Your task to perform on an android device: open device folders in google photos Image 0: 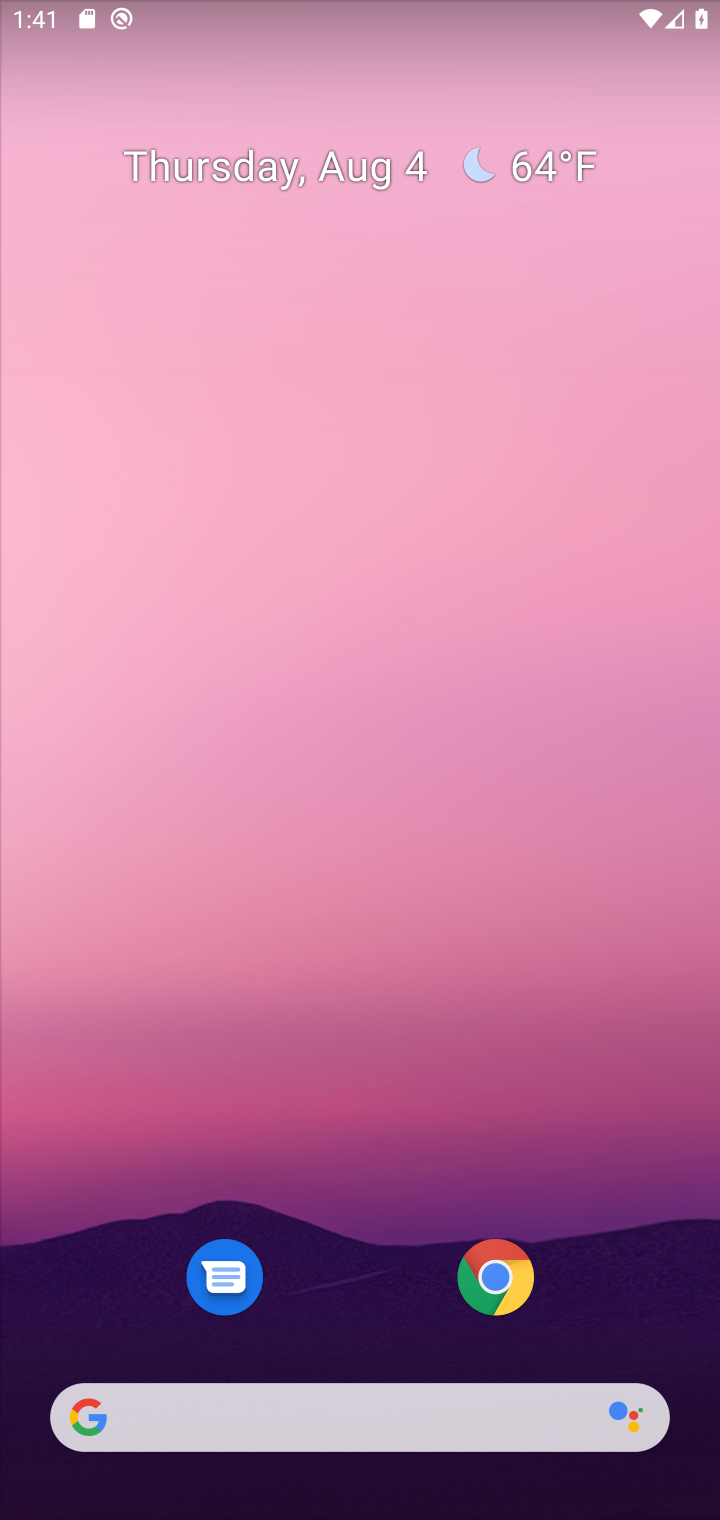
Step 0: drag from (492, 1313) to (424, 376)
Your task to perform on an android device: open device folders in google photos Image 1: 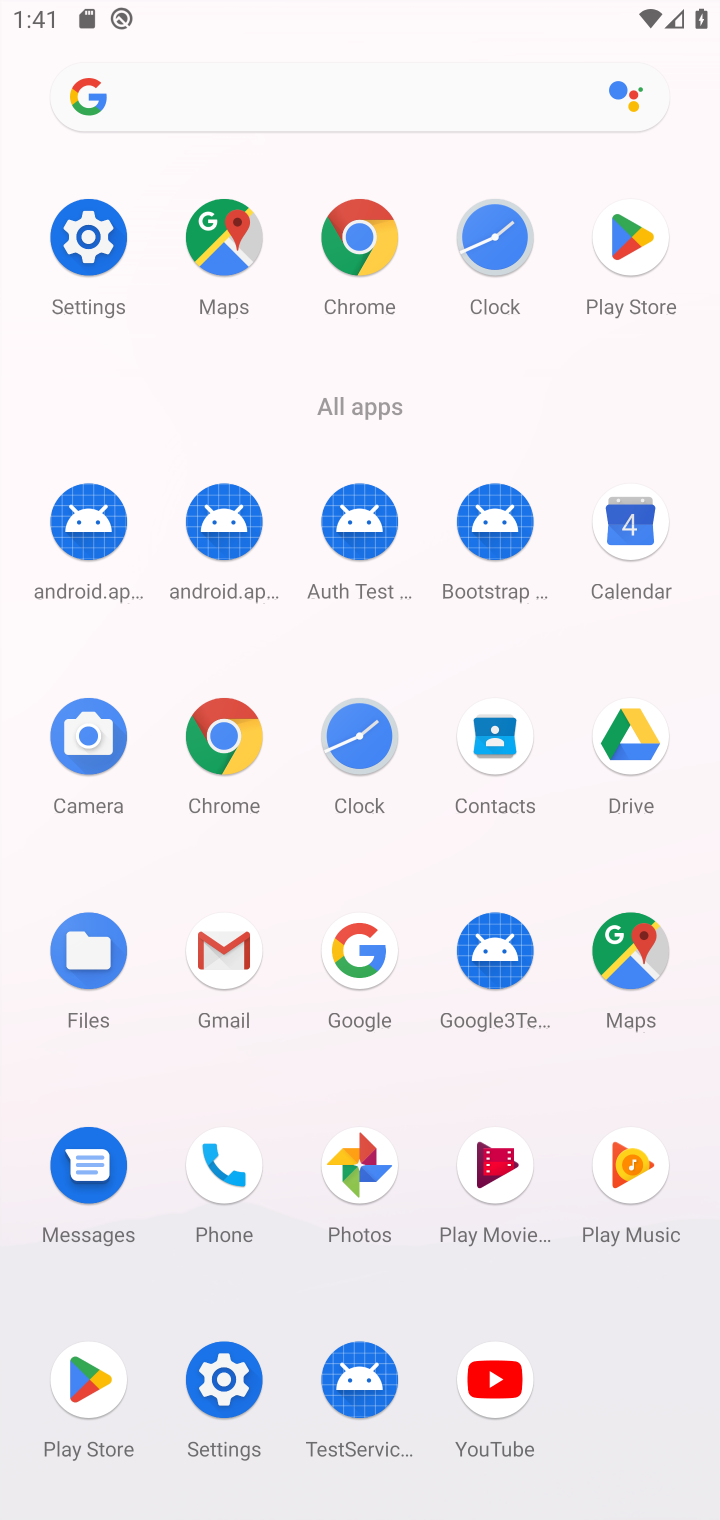
Step 1: click (359, 1189)
Your task to perform on an android device: open device folders in google photos Image 2: 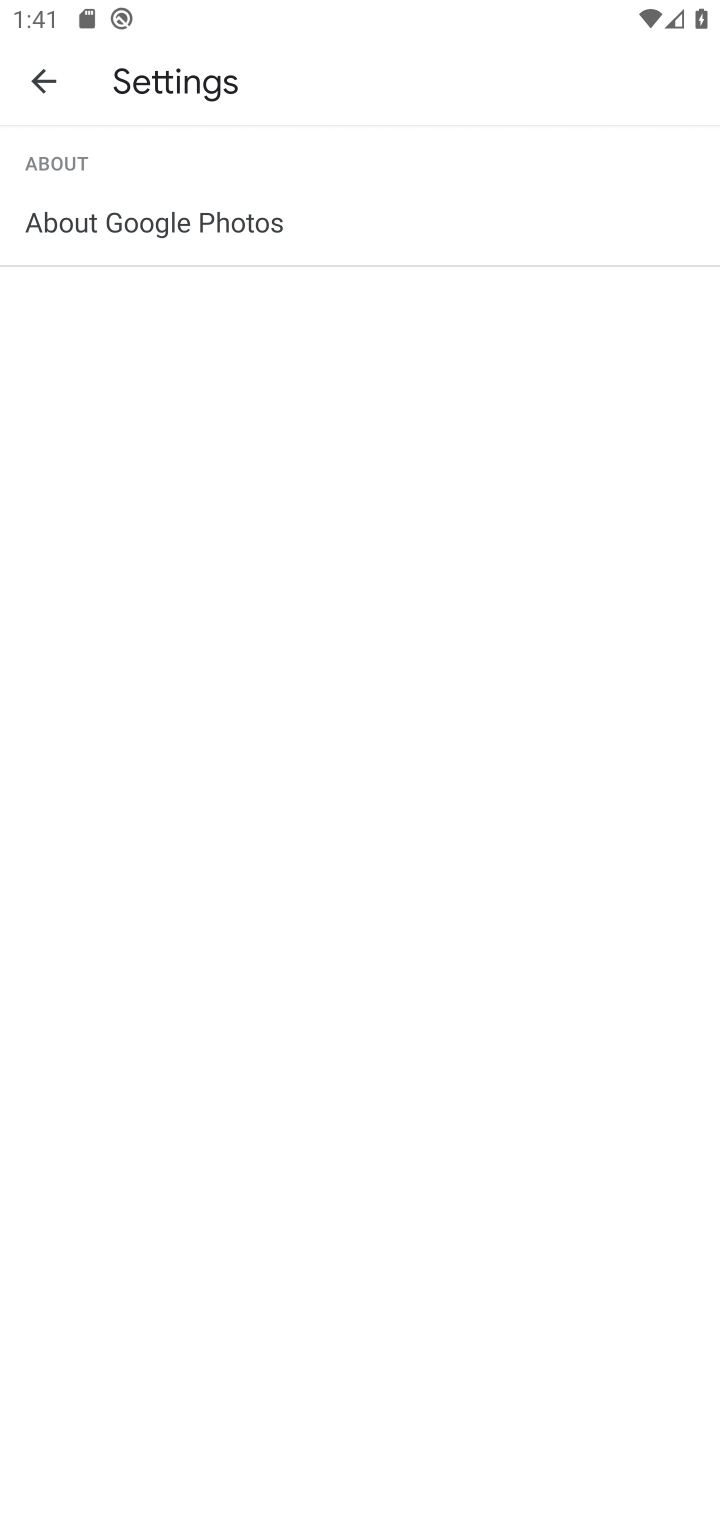
Step 2: click (61, 67)
Your task to perform on an android device: open device folders in google photos Image 3: 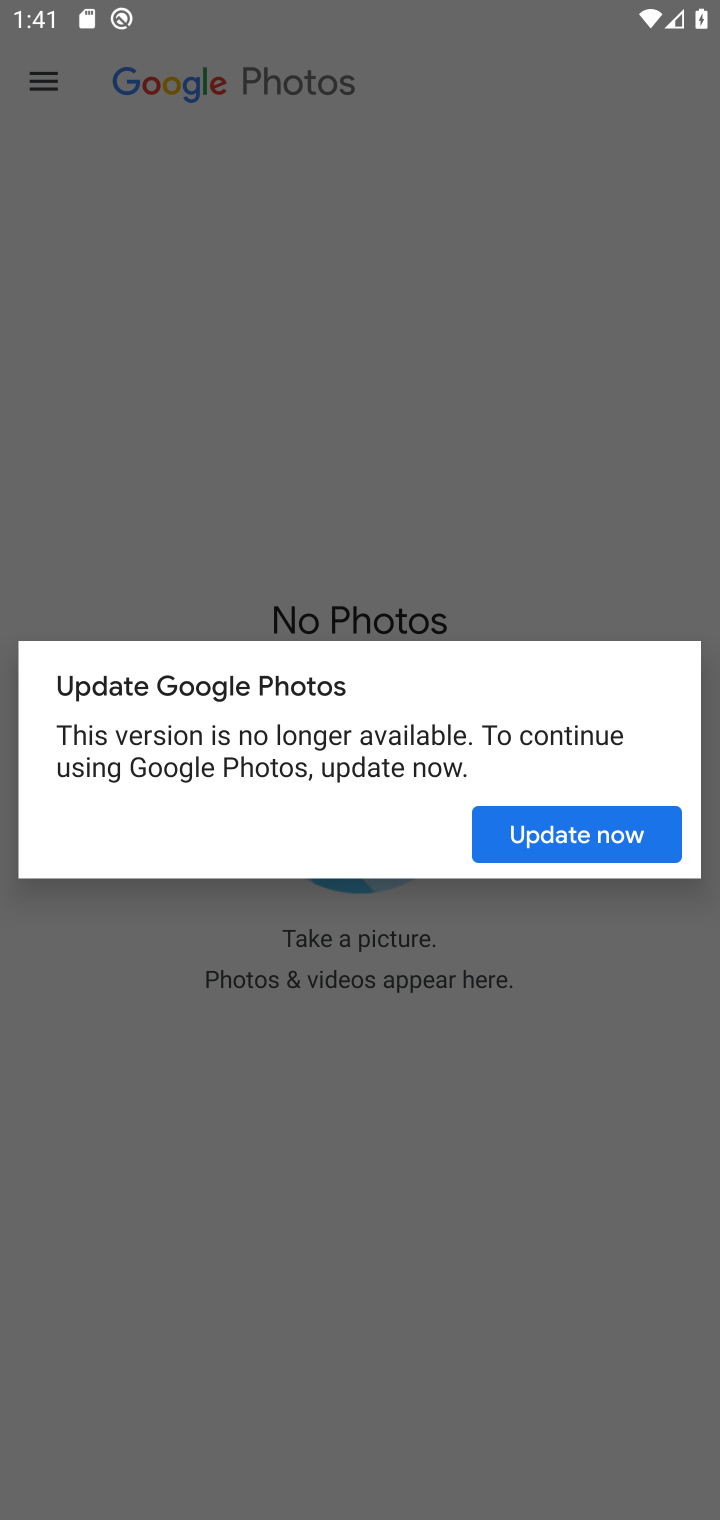
Step 3: click (556, 840)
Your task to perform on an android device: open device folders in google photos Image 4: 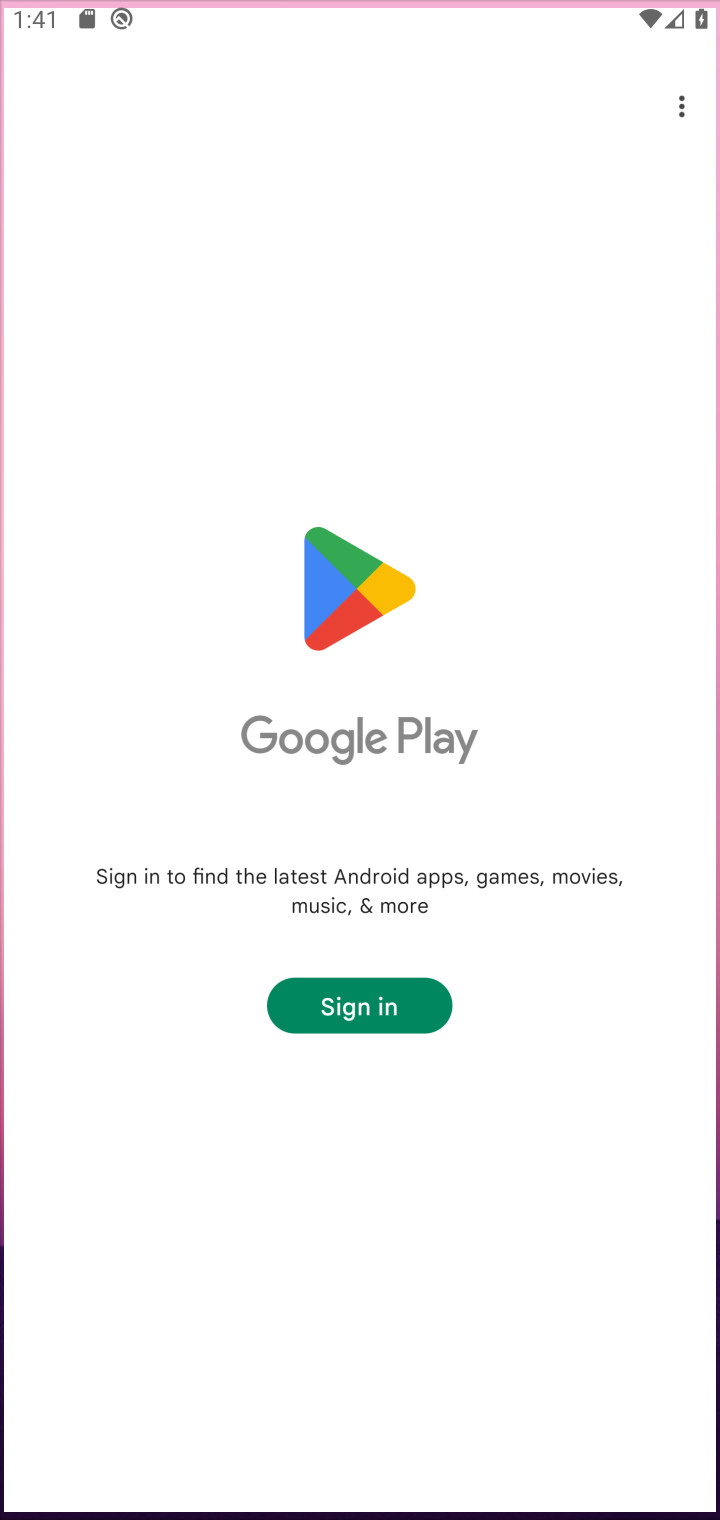
Step 4: press back button
Your task to perform on an android device: open device folders in google photos Image 5: 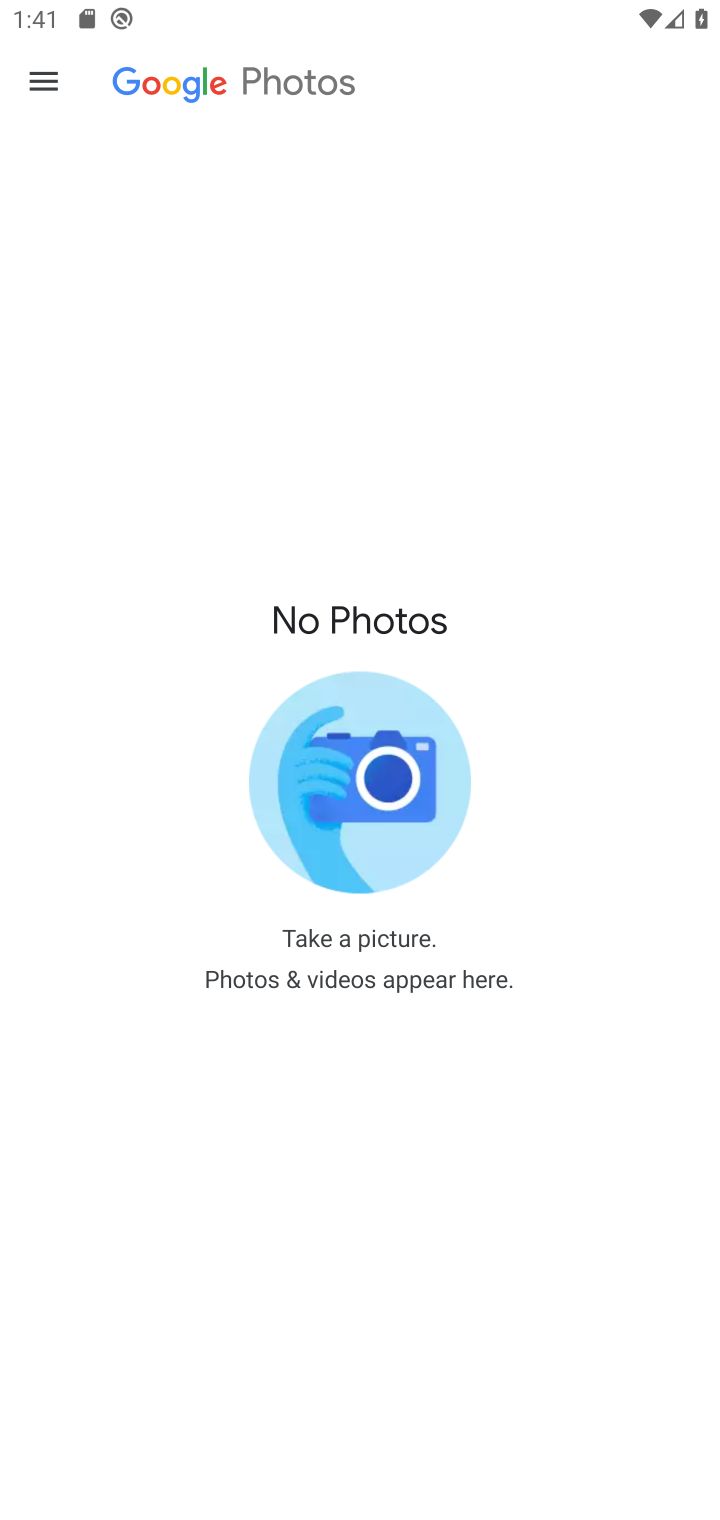
Step 5: drag from (650, 1449) to (534, 1092)
Your task to perform on an android device: open device folders in google photos Image 6: 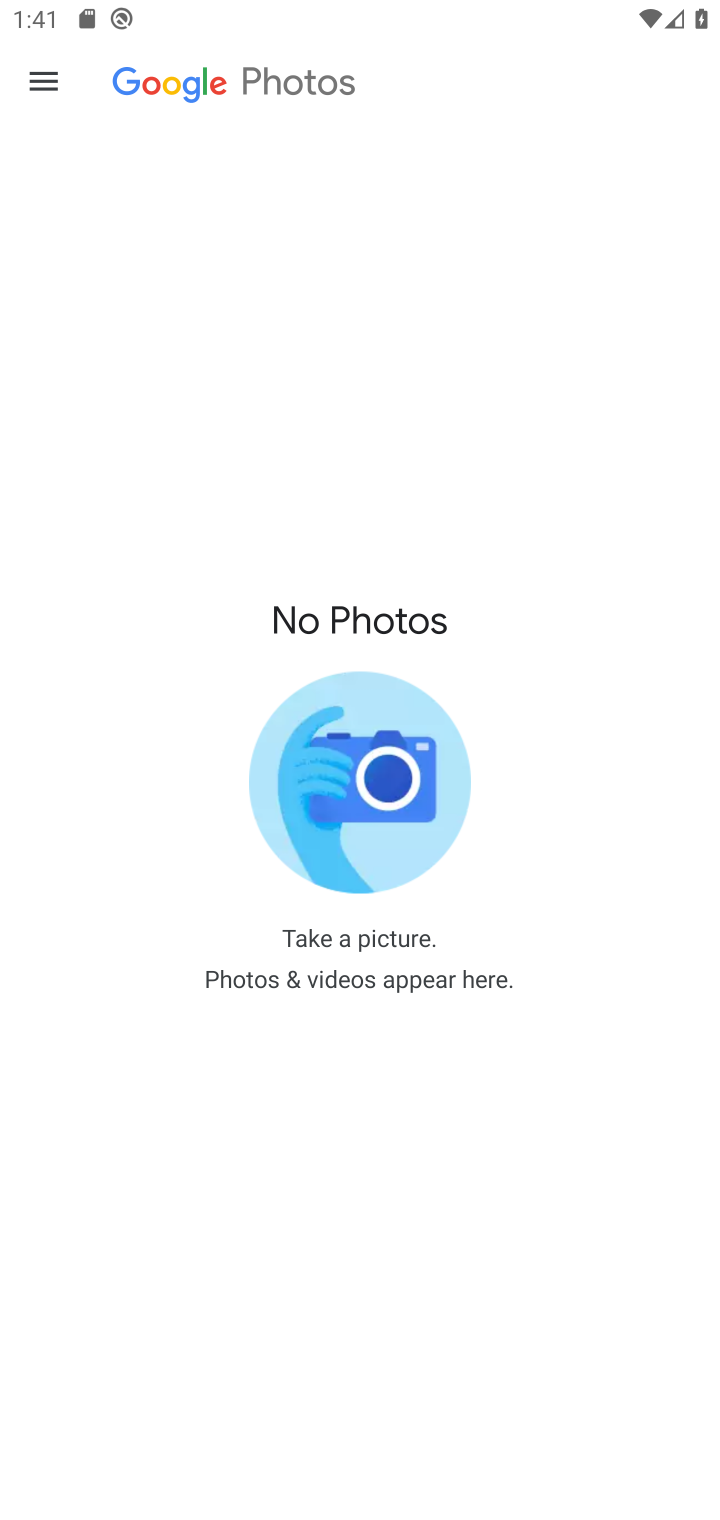
Step 6: click (534, 1092)
Your task to perform on an android device: open device folders in google photos Image 7: 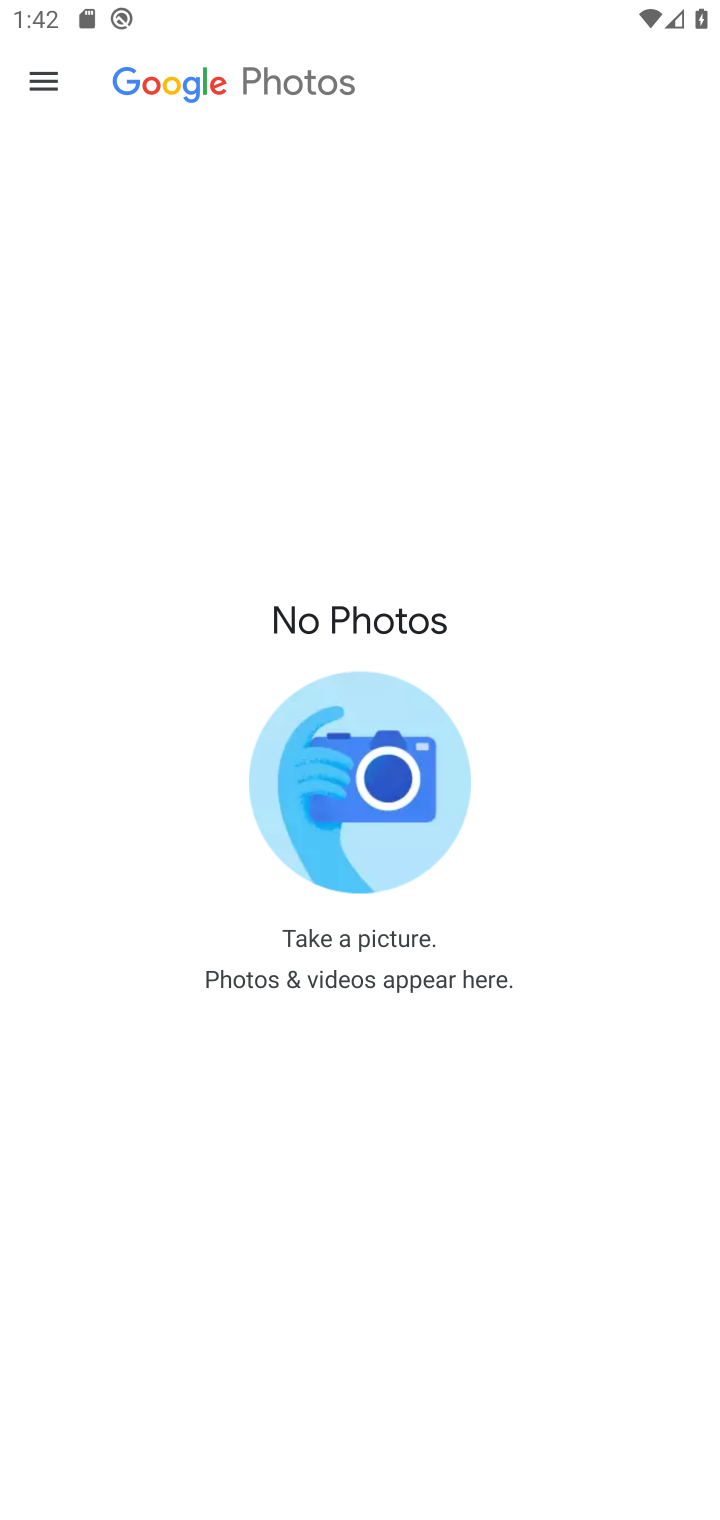
Step 7: click (534, 1092)
Your task to perform on an android device: open device folders in google photos Image 8: 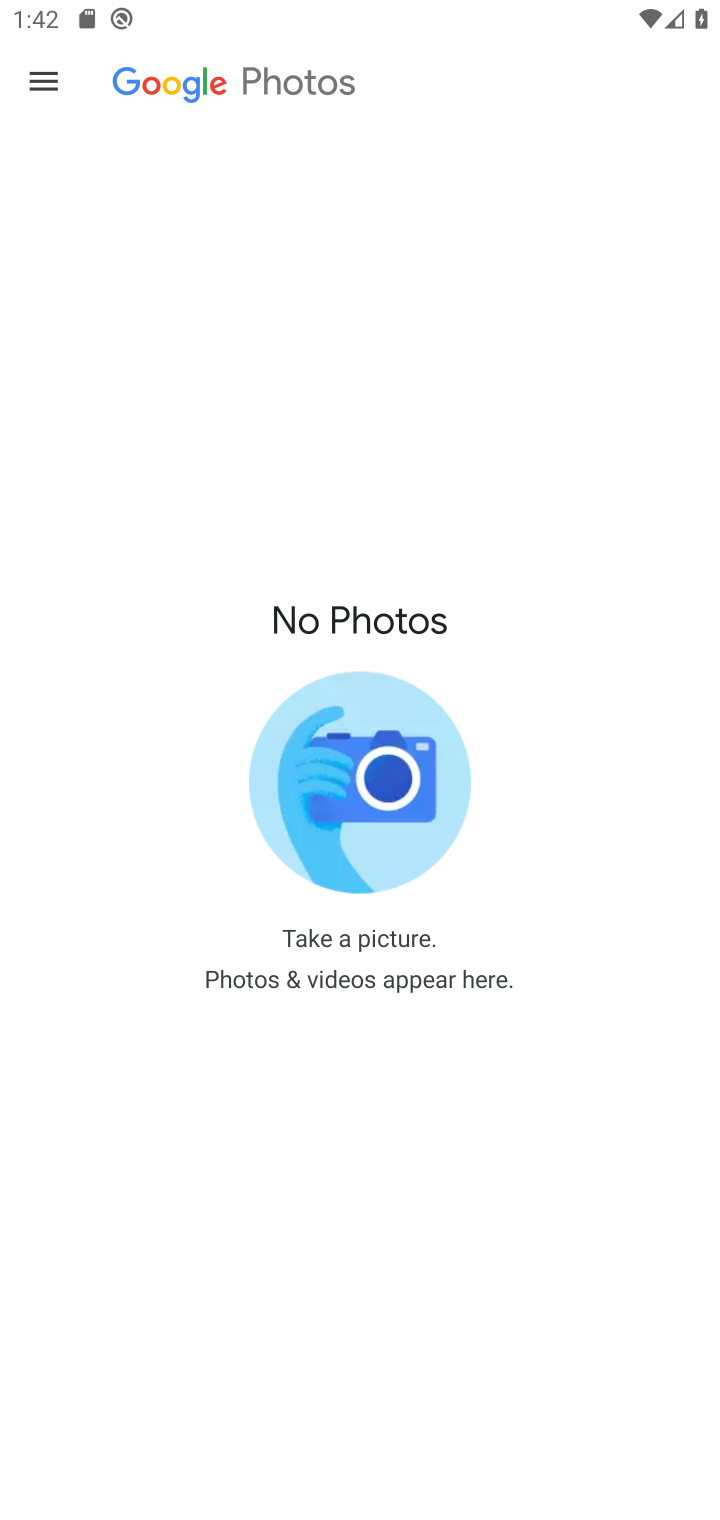
Step 8: task complete